Your task to perform on an android device: open app "Facebook" (install if not already installed) and enter user name: "resultants@gmail.com" and password: "earned" Image 0: 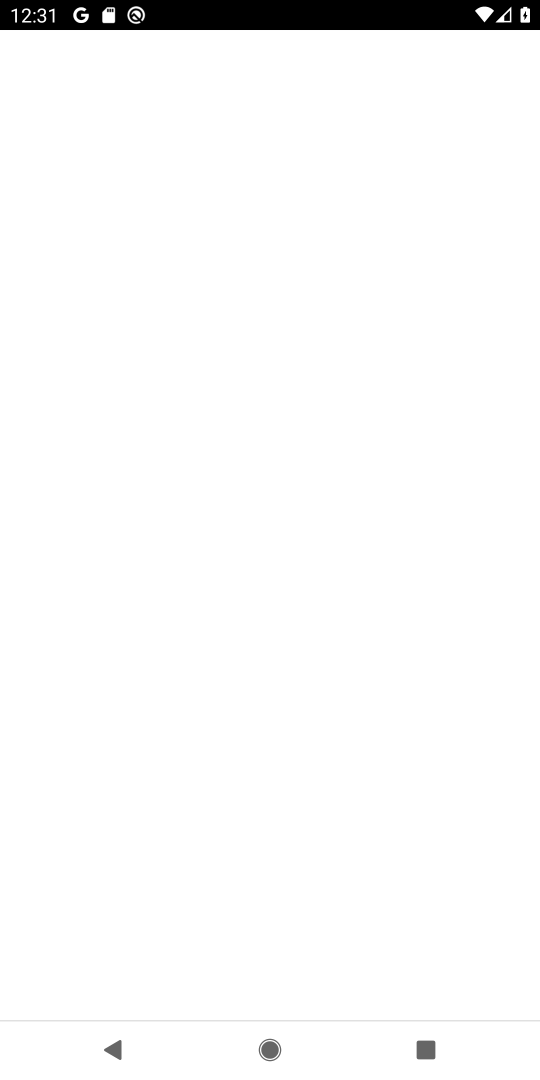
Step 0: click (432, 62)
Your task to perform on an android device: open app "Facebook" (install if not already installed) and enter user name: "resultants@gmail.com" and password: "earned" Image 1: 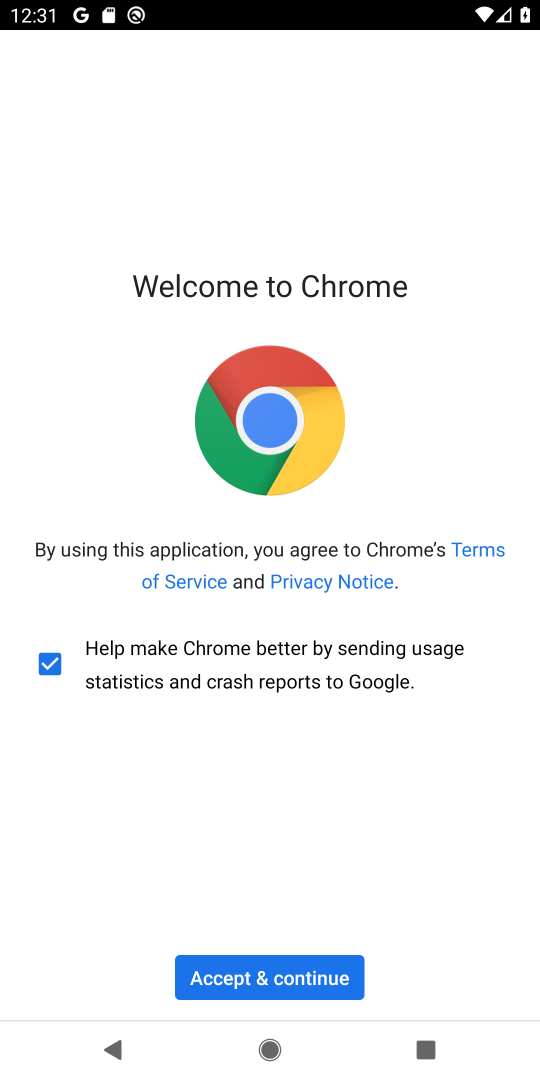
Step 1: press home button
Your task to perform on an android device: open app "Facebook" (install if not already installed) and enter user name: "resultants@gmail.com" and password: "earned" Image 2: 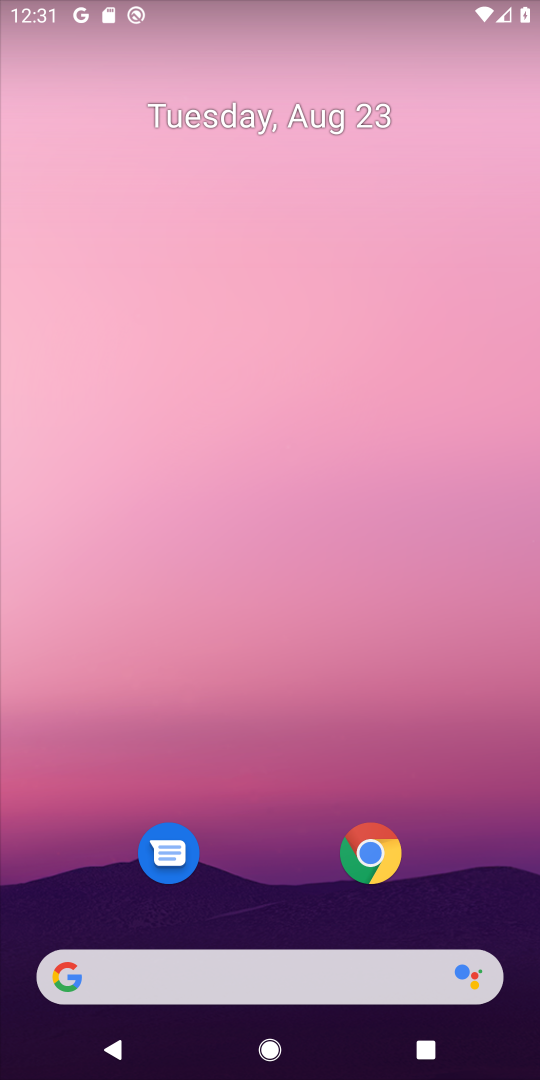
Step 2: drag from (294, 767) to (330, 52)
Your task to perform on an android device: open app "Facebook" (install if not already installed) and enter user name: "resultants@gmail.com" and password: "earned" Image 3: 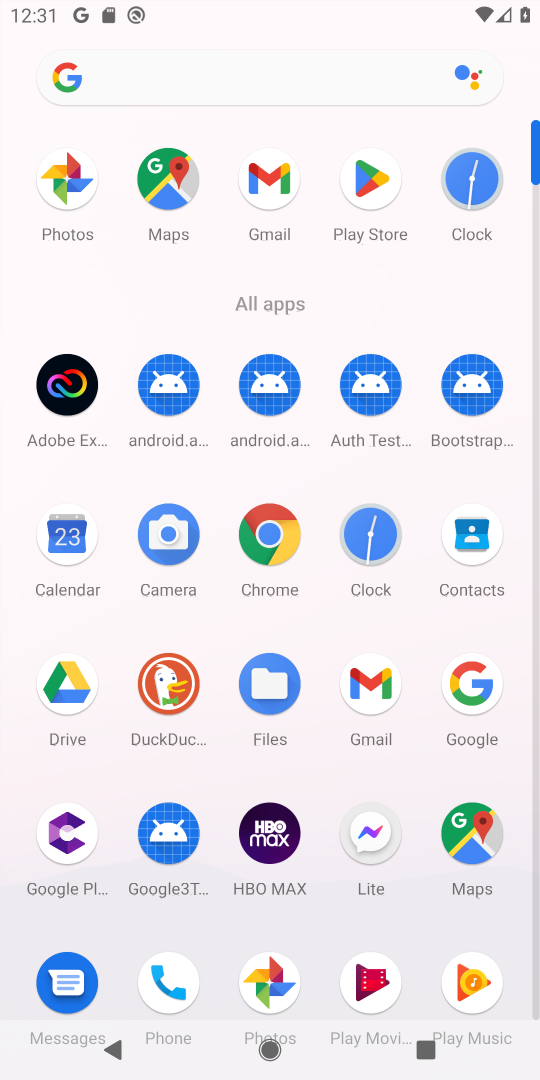
Step 3: drag from (321, 934) to (324, 423)
Your task to perform on an android device: open app "Facebook" (install if not already installed) and enter user name: "resultants@gmail.com" and password: "earned" Image 4: 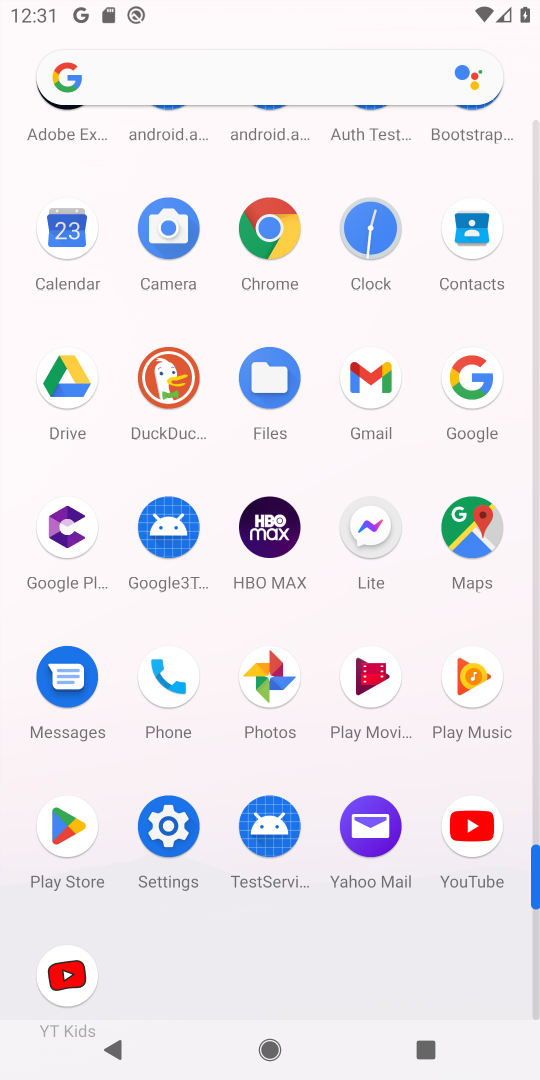
Step 4: click (75, 827)
Your task to perform on an android device: open app "Facebook" (install if not already installed) and enter user name: "resultants@gmail.com" and password: "earned" Image 5: 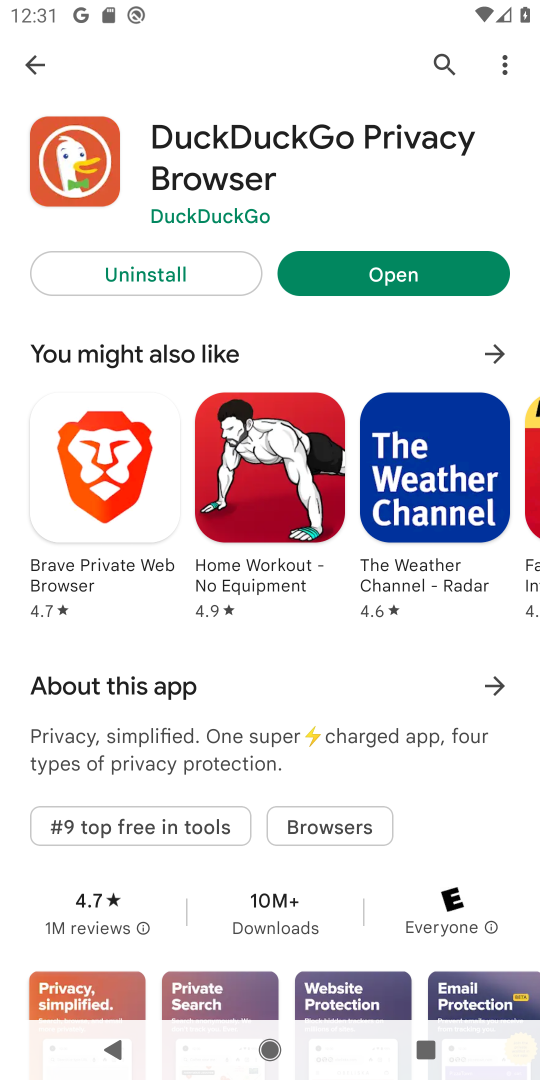
Step 5: click (444, 68)
Your task to perform on an android device: open app "Facebook" (install if not already installed) and enter user name: "resultants@gmail.com" and password: "earned" Image 6: 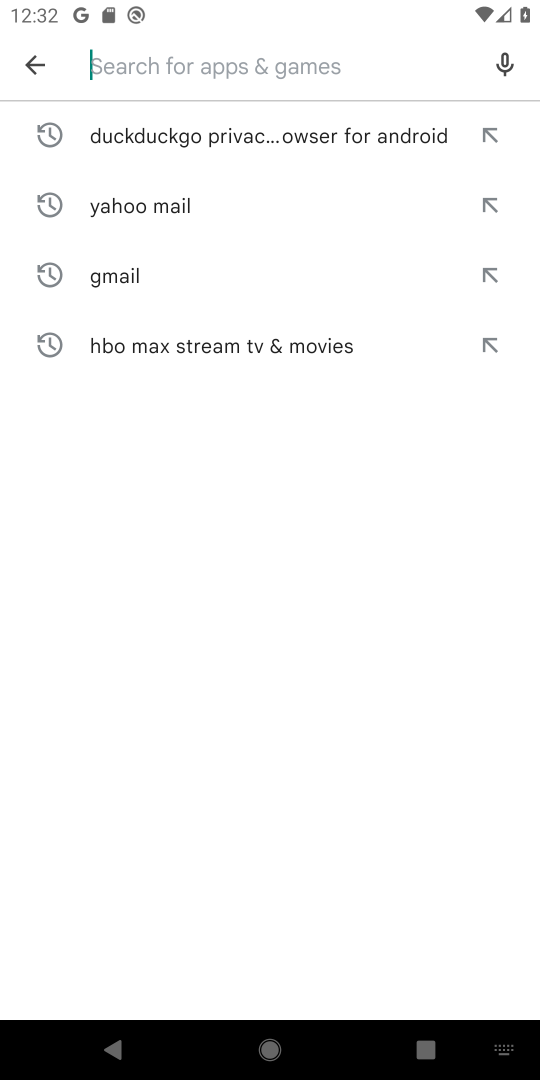
Step 6: type "facebook"
Your task to perform on an android device: open app "Facebook" (install if not already installed) and enter user name: "resultants@gmail.com" and password: "earned" Image 7: 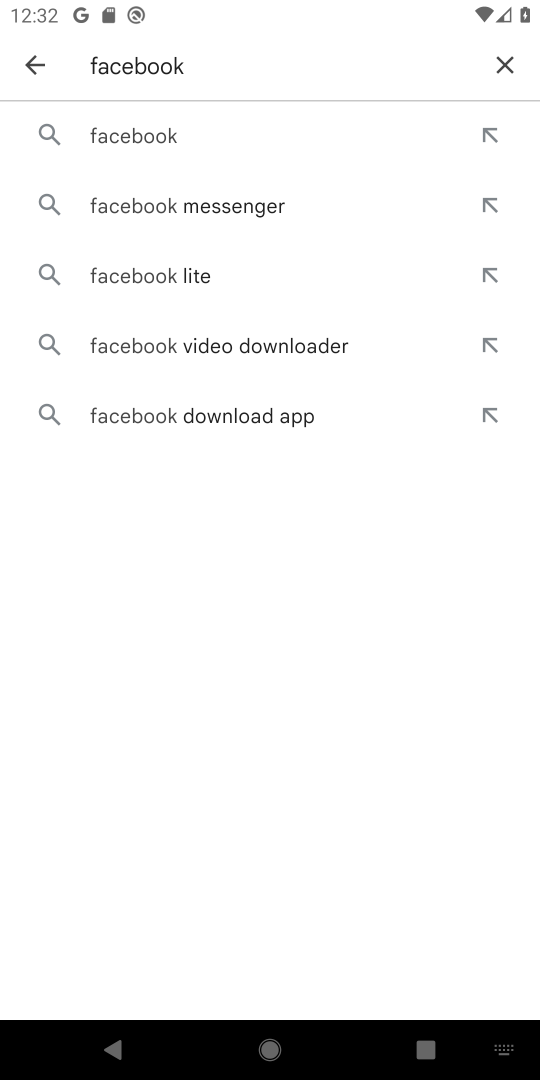
Step 7: click (150, 137)
Your task to perform on an android device: open app "Facebook" (install if not already installed) and enter user name: "resultants@gmail.com" and password: "earned" Image 8: 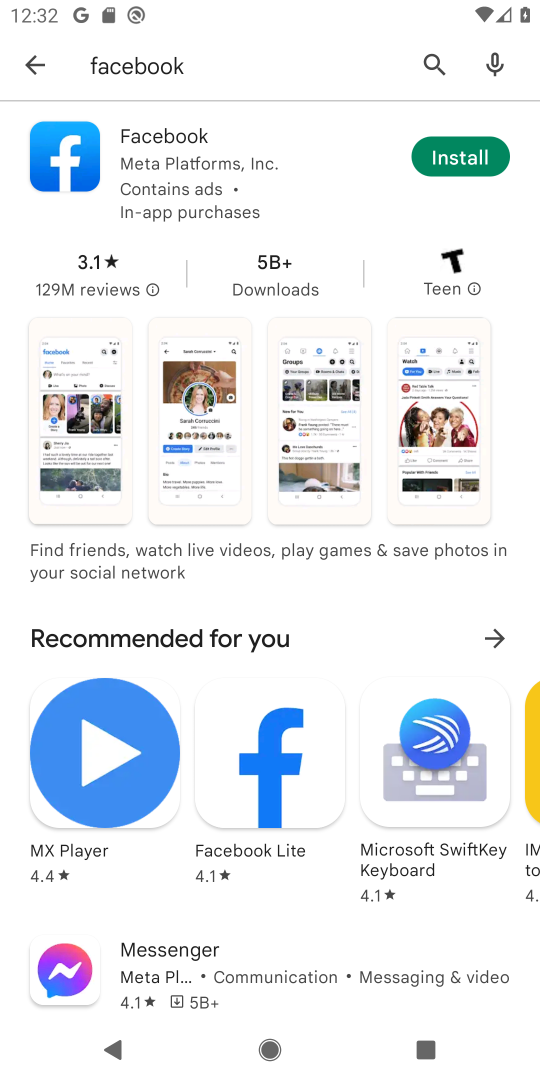
Step 8: click (459, 162)
Your task to perform on an android device: open app "Facebook" (install if not already installed) and enter user name: "resultants@gmail.com" and password: "earned" Image 9: 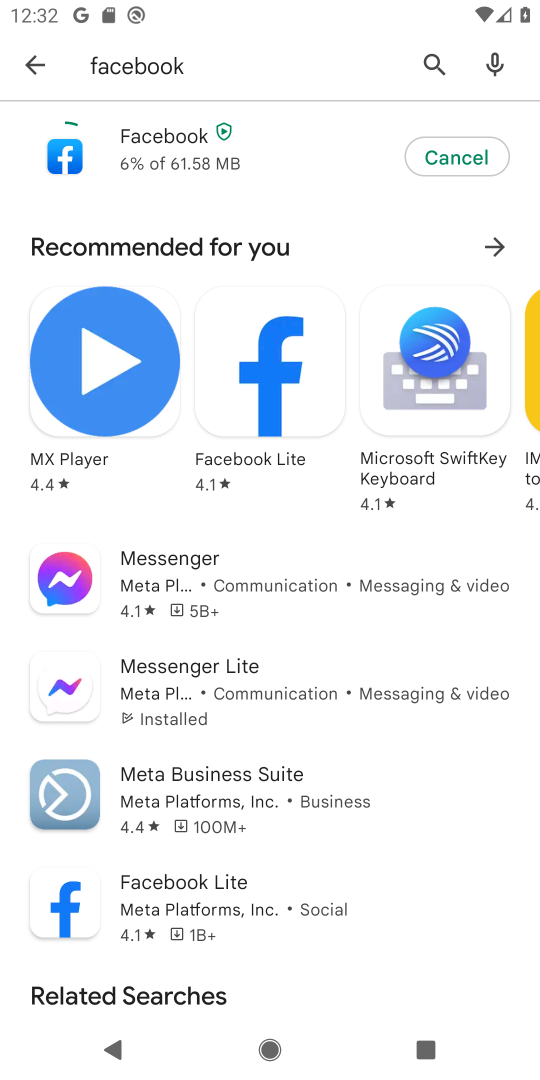
Step 9: click (168, 144)
Your task to perform on an android device: open app "Facebook" (install if not already installed) and enter user name: "resultants@gmail.com" and password: "earned" Image 10: 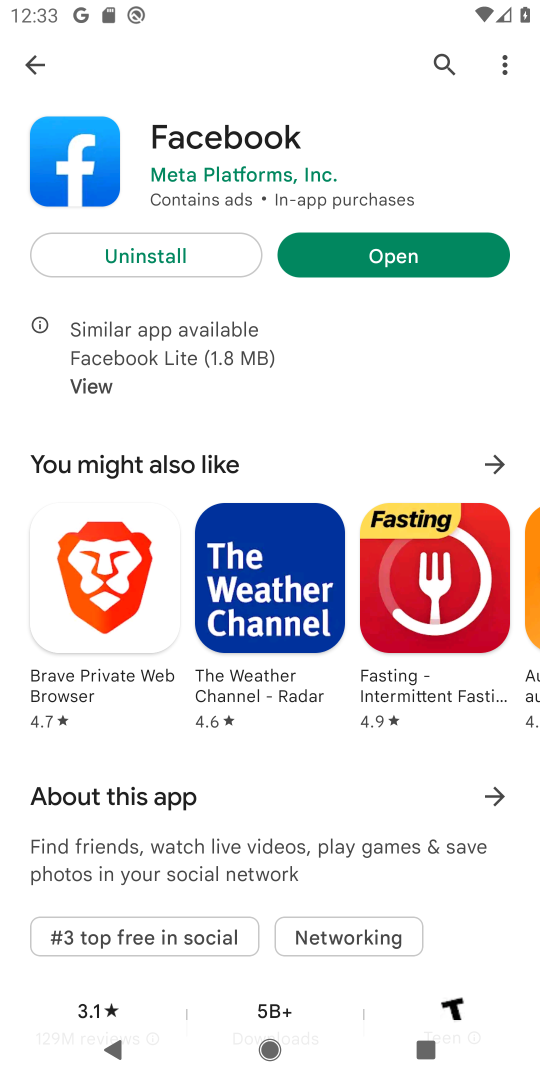
Step 10: click (393, 257)
Your task to perform on an android device: open app "Facebook" (install if not already installed) and enter user name: "resultants@gmail.com" and password: "earned" Image 11: 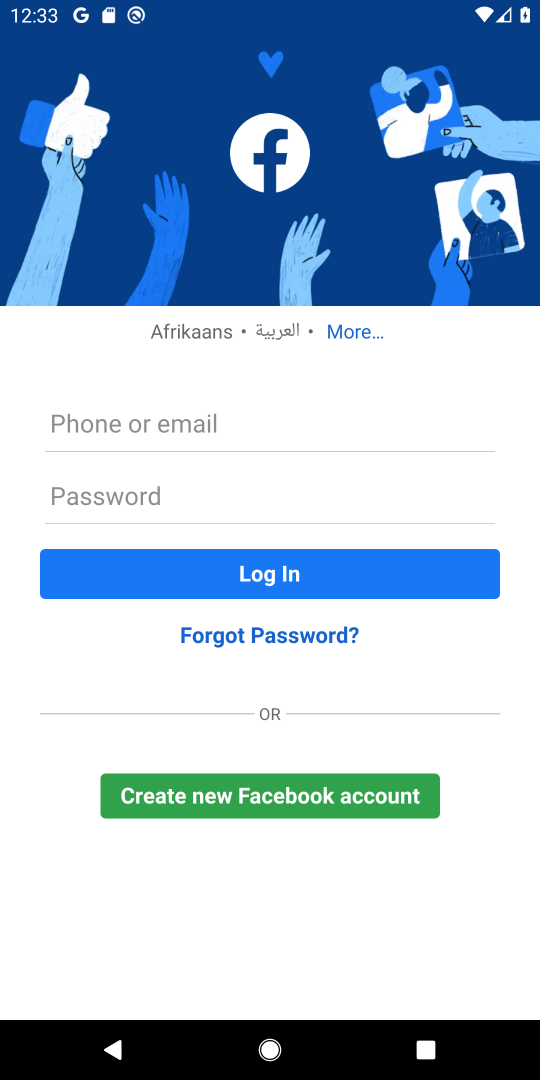
Step 11: click (150, 423)
Your task to perform on an android device: open app "Facebook" (install if not already installed) and enter user name: "resultants@gmail.com" and password: "earned" Image 12: 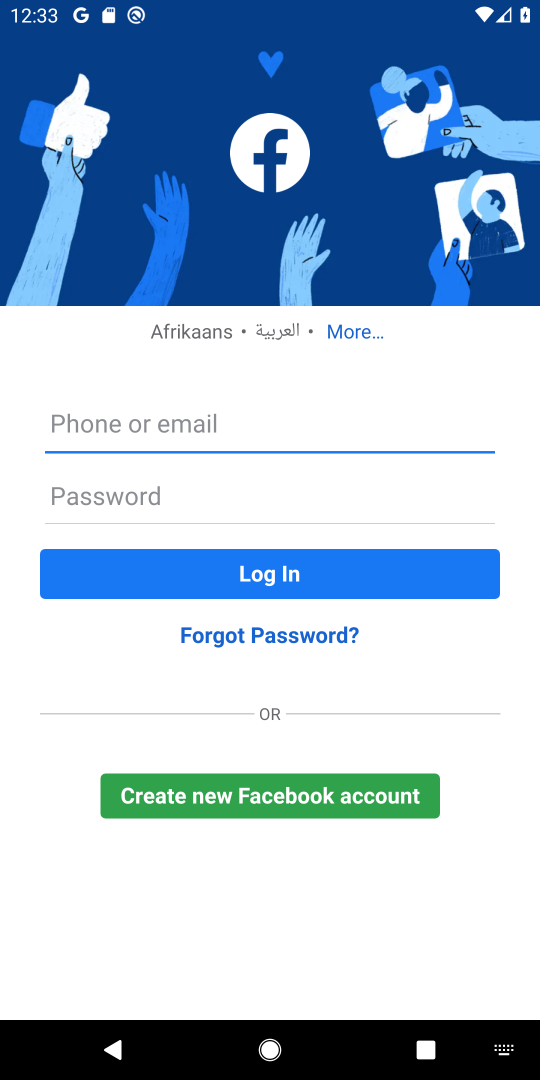
Step 12: type "resultants@gmail.com"
Your task to perform on an android device: open app "Facebook" (install if not already installed) and enter user name: "resultants@gmail.com" and password: "earned" Image 13: 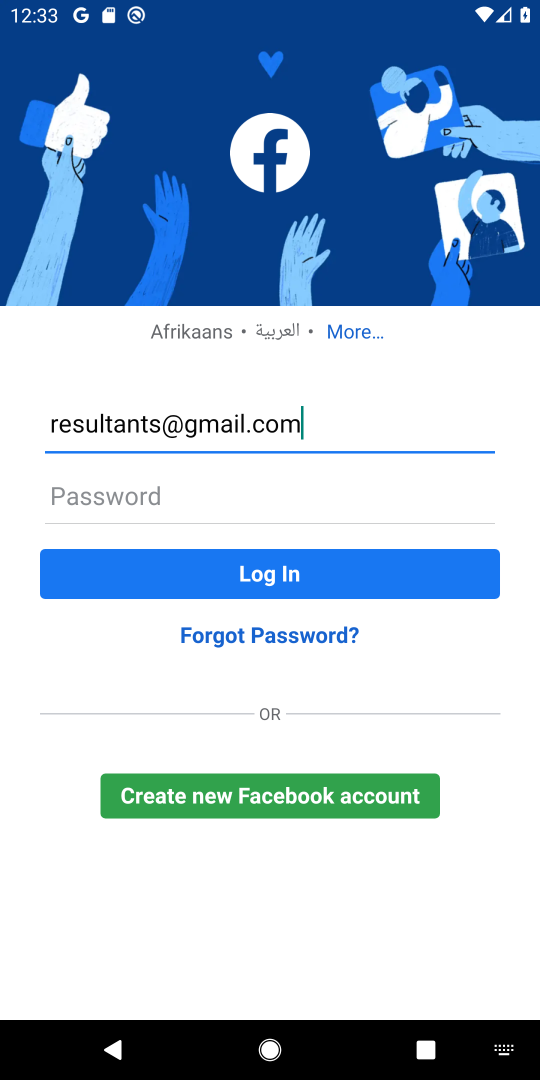
Step 13: click (134, 492)
Your task to perform on an android device: open app "Facebook" (install if not already installed) and enter user name: "resultants@gmail.com" and password: "earned" Image 14: 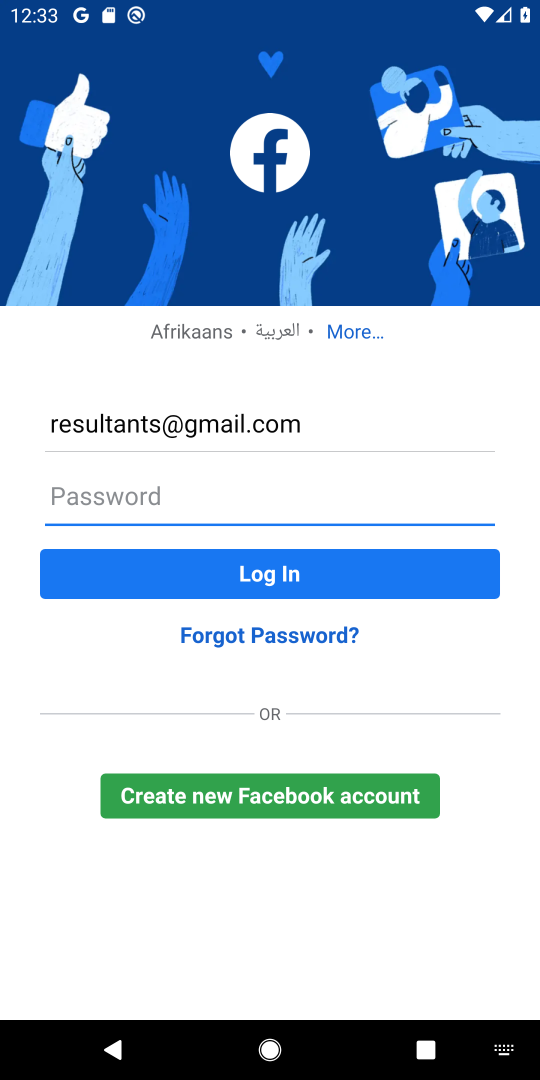
Step 14: type "earned"
Your task to perform on an android device: open app "Facebook" (install if not already installed) and enter user name: "resultants@gmail.com" and password: "earned" Image 15: 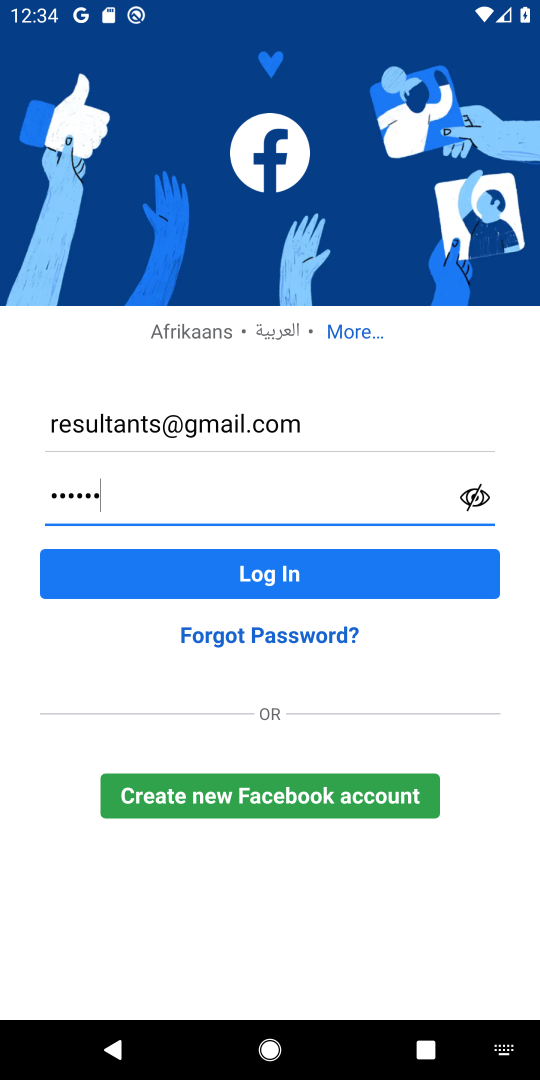
Step 15: task complete